Your task to perform on an android device: Open CNN.com Image 0: 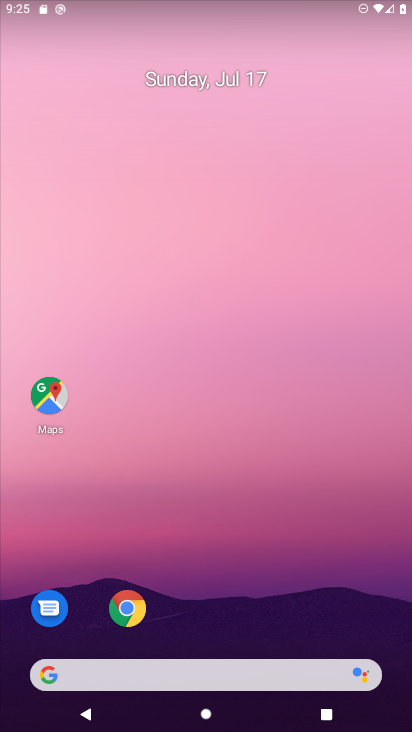
Step 0: click (127, 610)
Your task to perform on an android device: Open CNN.com Image 1: 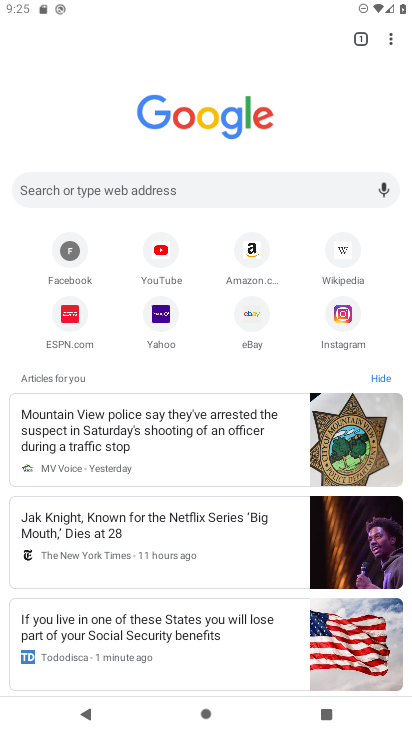
Step 1: click (280, 197)
Your task to perform on an android device: Open CNN.com Image 2: 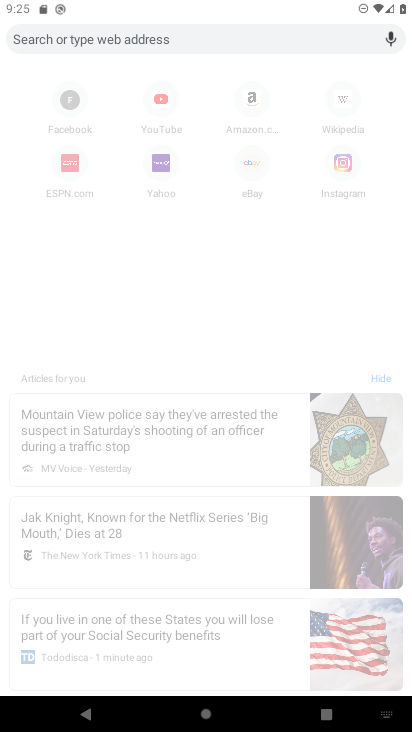
Step 2: type "CNN.com"
Your task to perform on an android device: Open CNN.com Image 3: 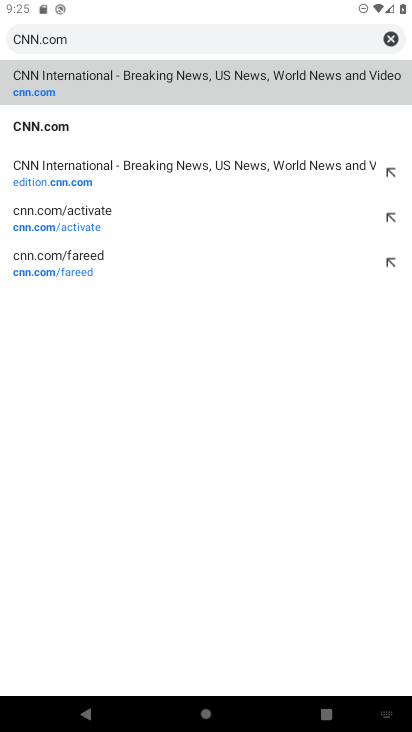
Step 3: click (68, 125)
Your task to perform on an android device: Open CNN.com Image 4: 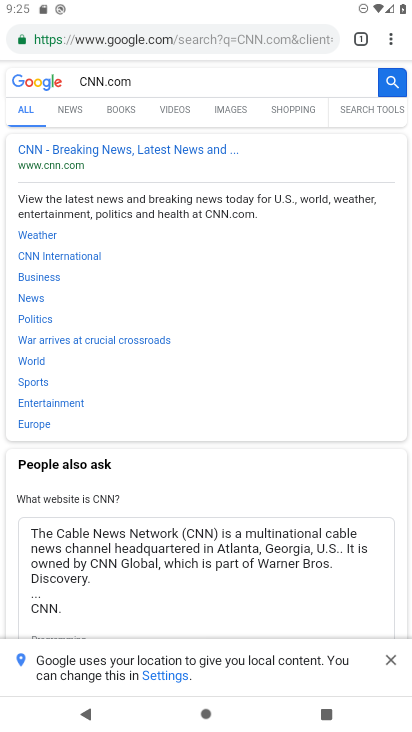
Step 4: click (123, 164)
Your task to perform on an android device: Open CNN.com Image 5: 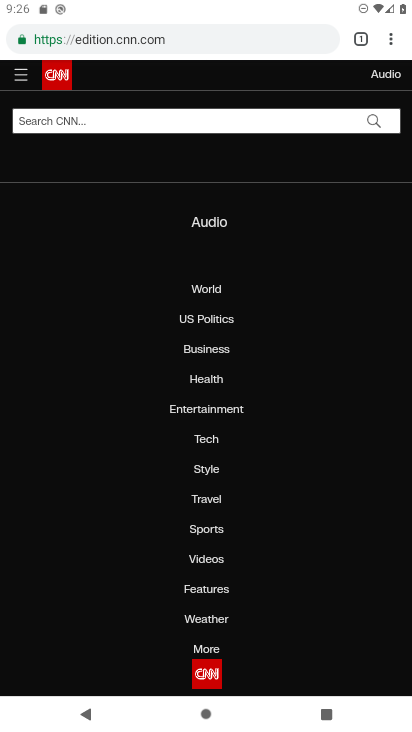
Step 5: task complete